Your task to perform on an android device: open app "Adobe Acrobat Reader: Edit PDF" Image 0: 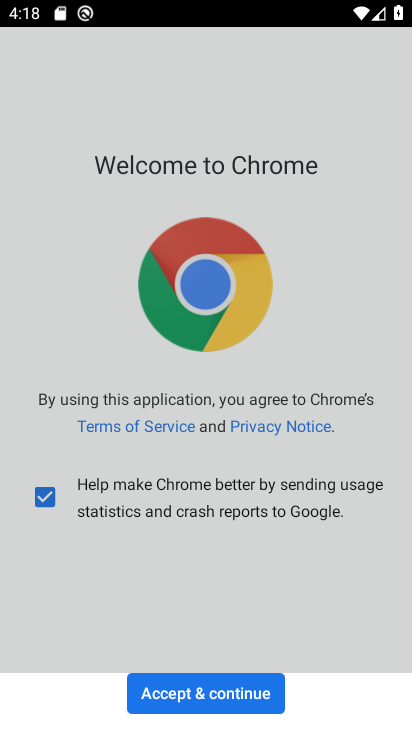
Step 0: press home button
Your task to perform on an android device: open app "Adobe Acrobat Reader: Edit PDF" Image 1: 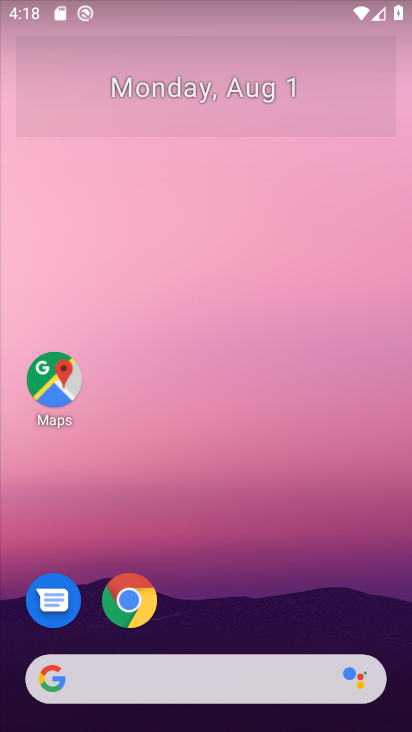
Step 1: drag from (305, 506) to (283, 58)
Your task to perform on an android device: open app "Adobe Acrobat Reader: Edit PDF" Image 2: 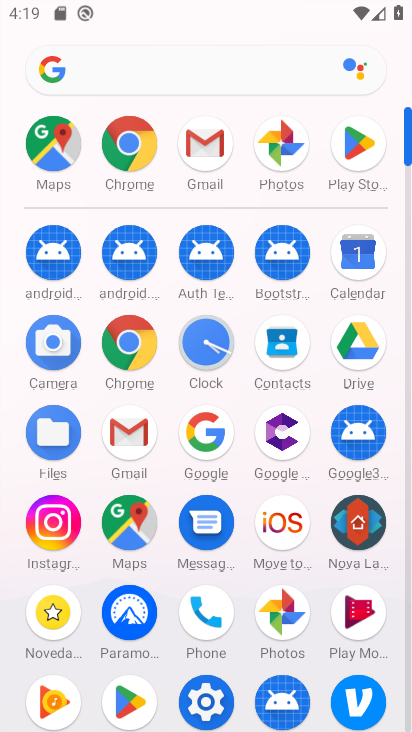
Step 2: click (365, 154)
Your task to perform on an android device: open app "Adobe Acrobat Reader: Edit PDF" Image 3: 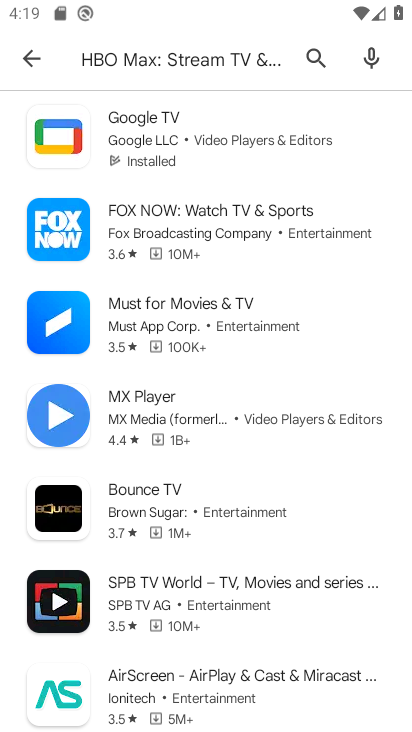
Step 3: click (148, 47)
Your task to perform on an android device: open app "Adobe Acrobat Reader: Edit PDF" Image 4: 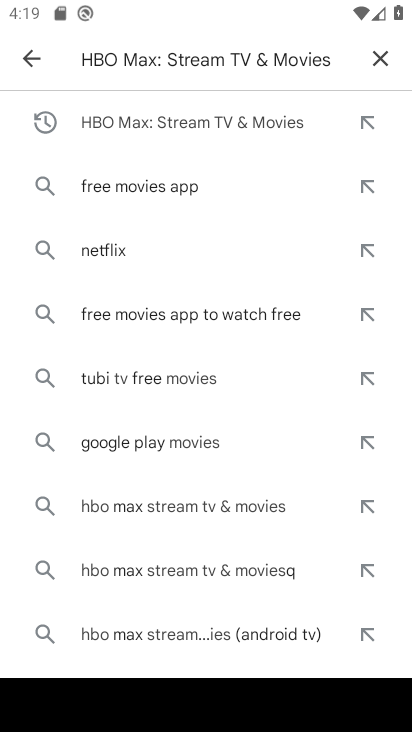
Step 4: click (394, 56)
Your task to perform on an android device: open app "Adobe Acrobat Reader: Edit PDF" Image 5: 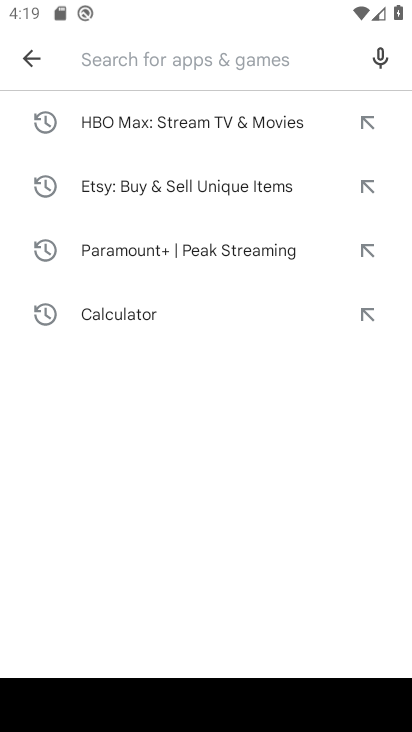
Step 5: type "Adobe Acrobat Reader"
Your task to perform on an android device: open app "Adobe Acrobat Reader: Edit PDF" Image 6: 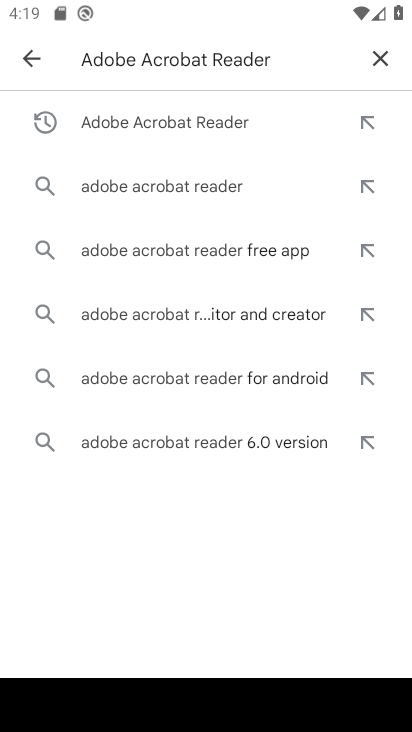
Step 6: type ": Edit PDF"
Your task to perform on an android device: open app "Adobe Acrobat Reader: Edit PDF" Image 7: 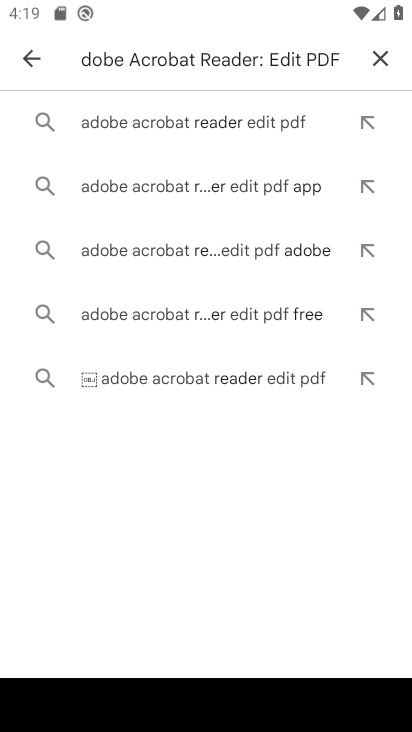
Step 7: press enter
Your task to perform on an android device: open app "Adobe Acrobat Reader: Edit PDF" Image 8: 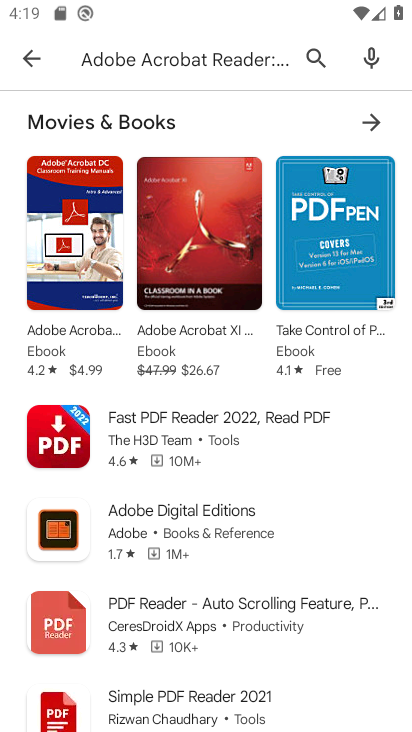
Step 8: task complete